Your task to perform on an android device: check google app version Image 0: 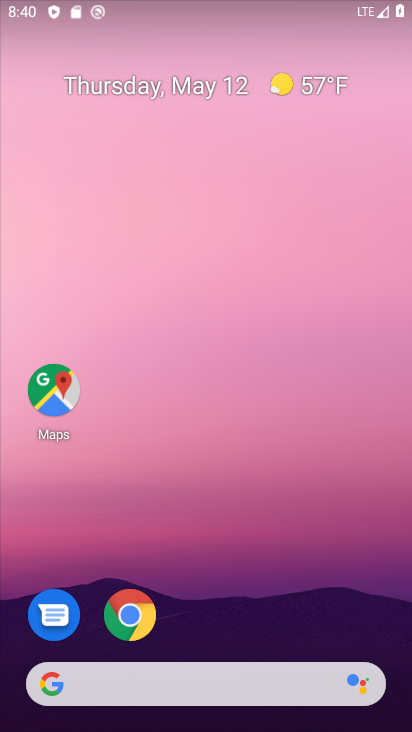
Step 0: drag from (227, 542) to (213, 0)
Your task to perform on an android device: check google app version Image 1: 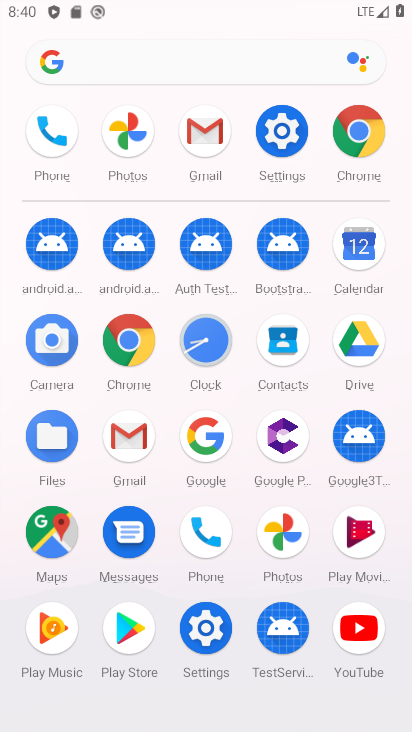
Step 1: drag from (4, 502) to (21, 268)
Your task to perform on an android device: check google app version Image 2: 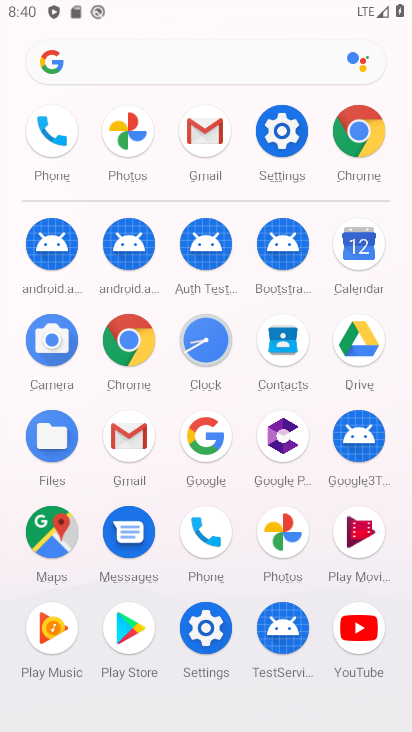
Step 2: click (200, 429)
Your task to perform on an android device: check google app version Image 3: 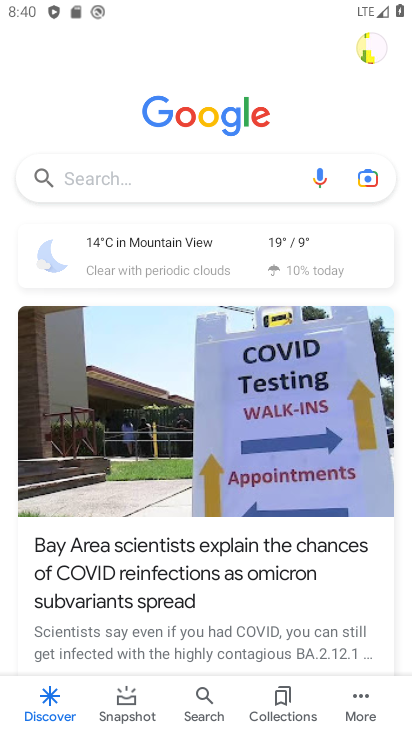
Step 3: drag from (170, 586) to (220, 306)
Your task to perform on an android device: check google app version Image 4: 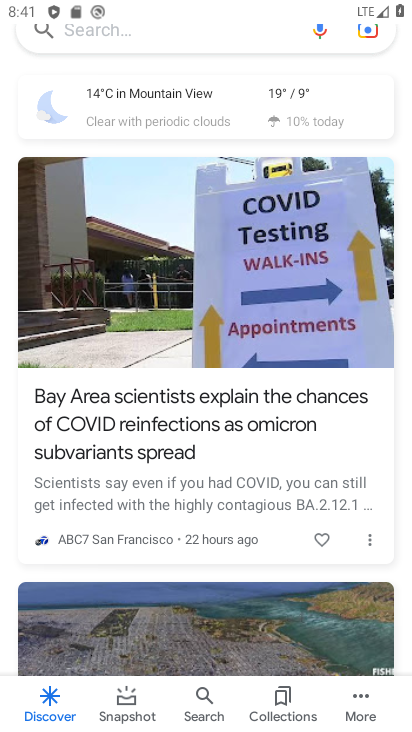
Step 4: click (355, 695)
Your task to perform on an android device: check google app version Image 5: 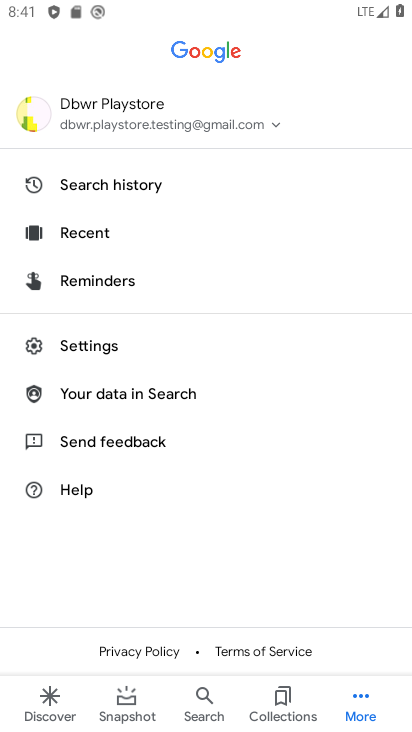
Step 5: click (125, 342)
Your task to perform on an android device: check google app version Image 6: 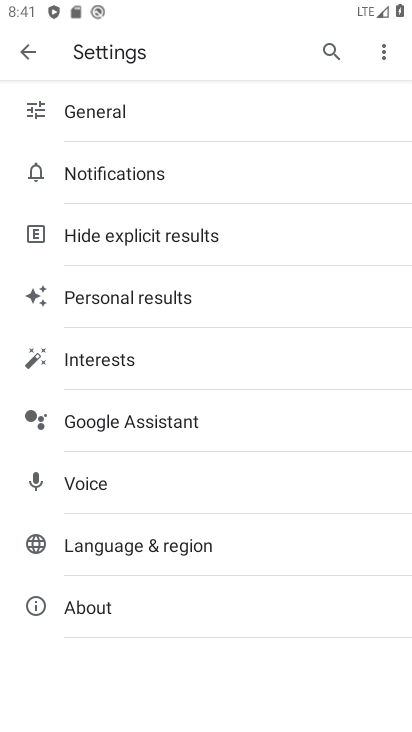
Step 6: click (136, 600)
Your task to perform on an android device: check google app version Image 7: 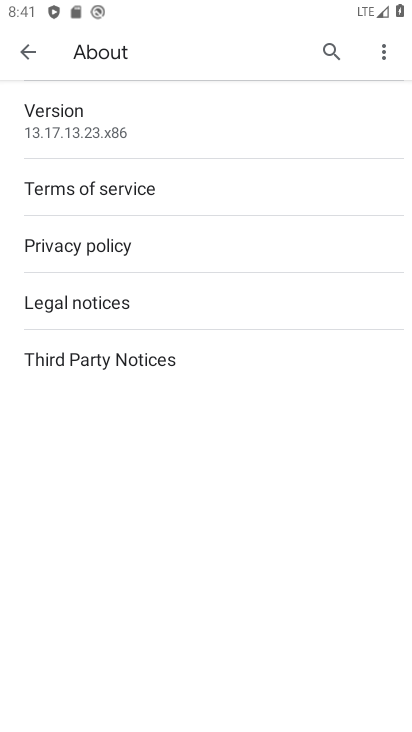
Step 7: task complete